Your task to perform on an android device: What's the latest news in planetary science? Image 0: 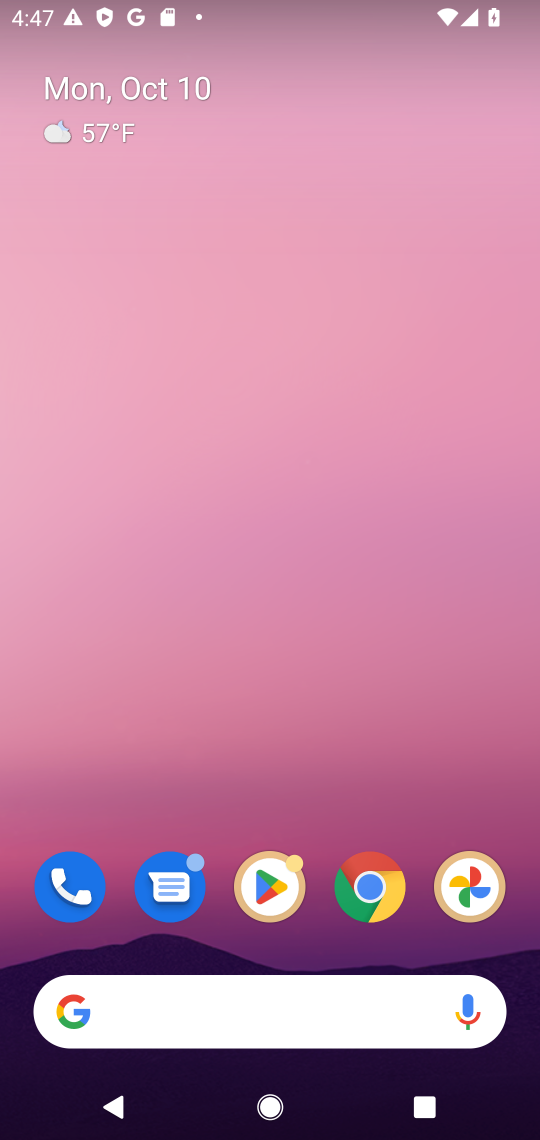
Step 0: drag from (316, 937) to (380, 23)
Your task to perform on an android device: What's the latest news in planetary science? Image 1: 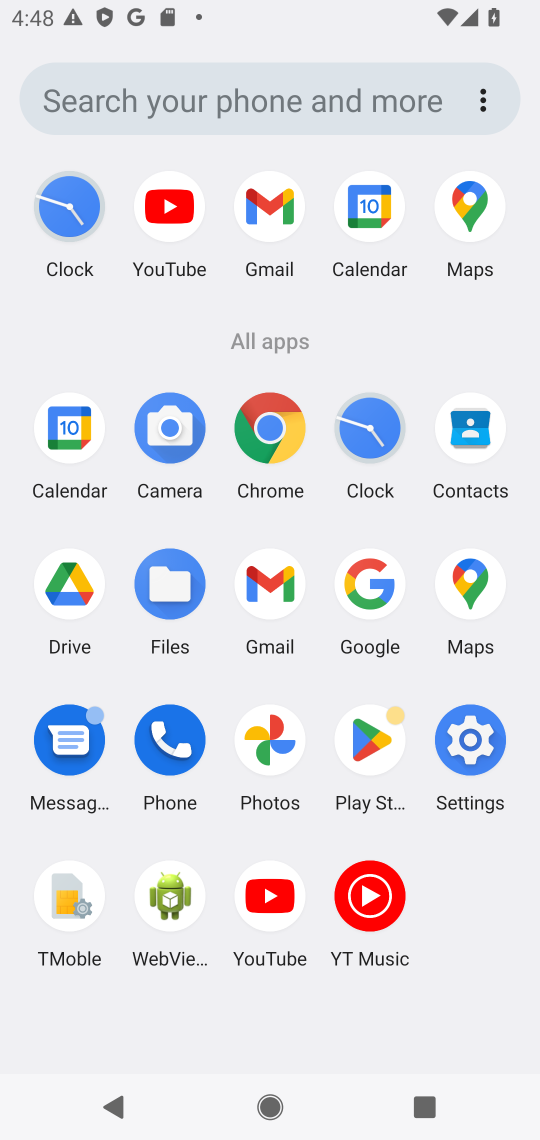
Step 1: click (272, 432)
Your task to perform on an android device: What's the latest news in planetary science? Image 2: 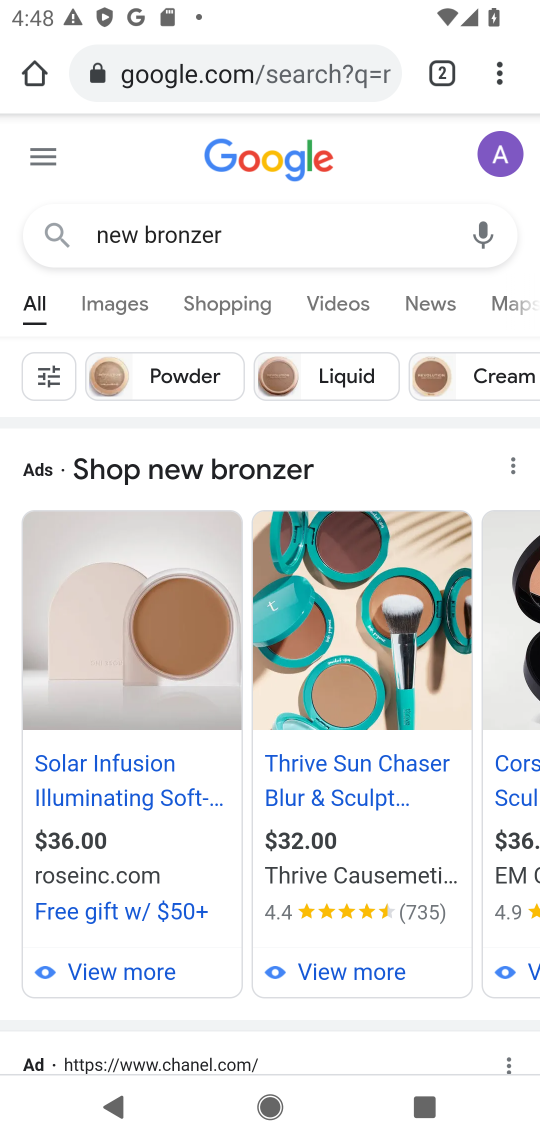
Step 2: click (159, 60)
Your task to perform on an android device: What's the latest news in planetary science? Image 3: 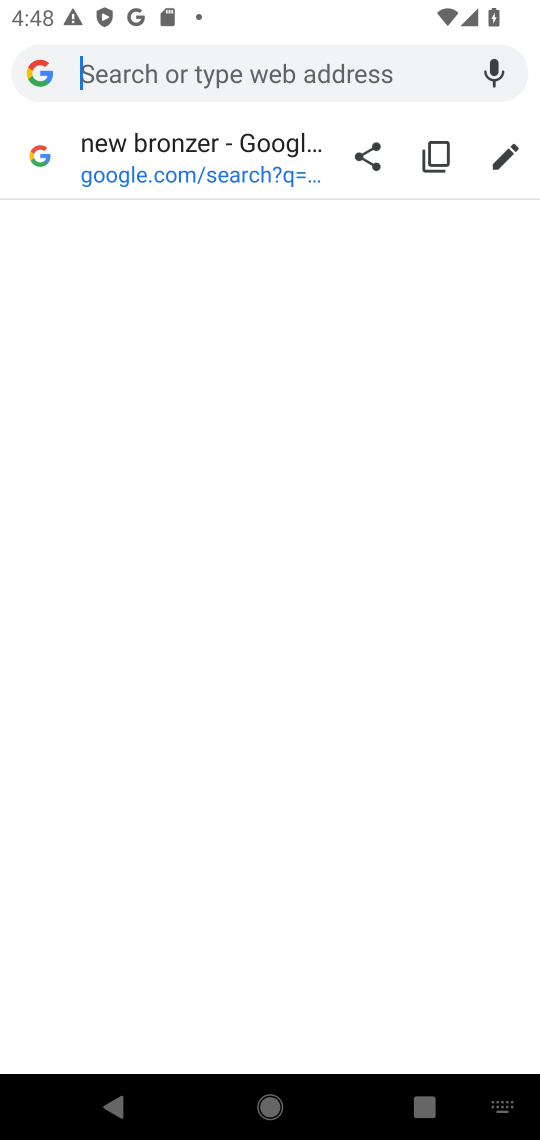
Step 3: type "What's the latest news in planetary science?"
Your task to perform on an android device: What's the latest news in planetary science? Image 4: 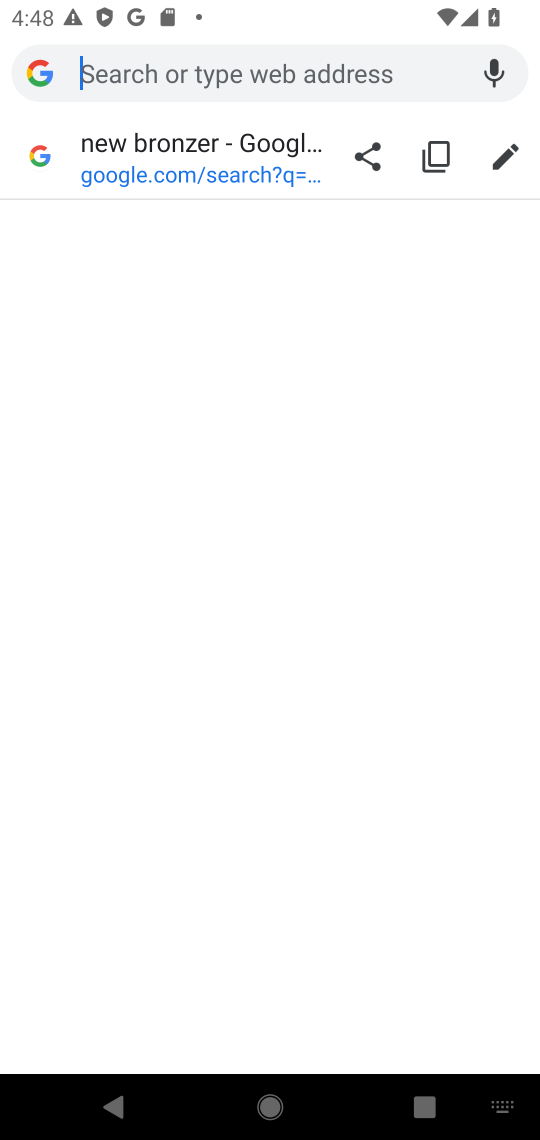
Step 4: click (366, 56)
Your task to perform on an android device: What's the latest news in planetary science? Image 5: 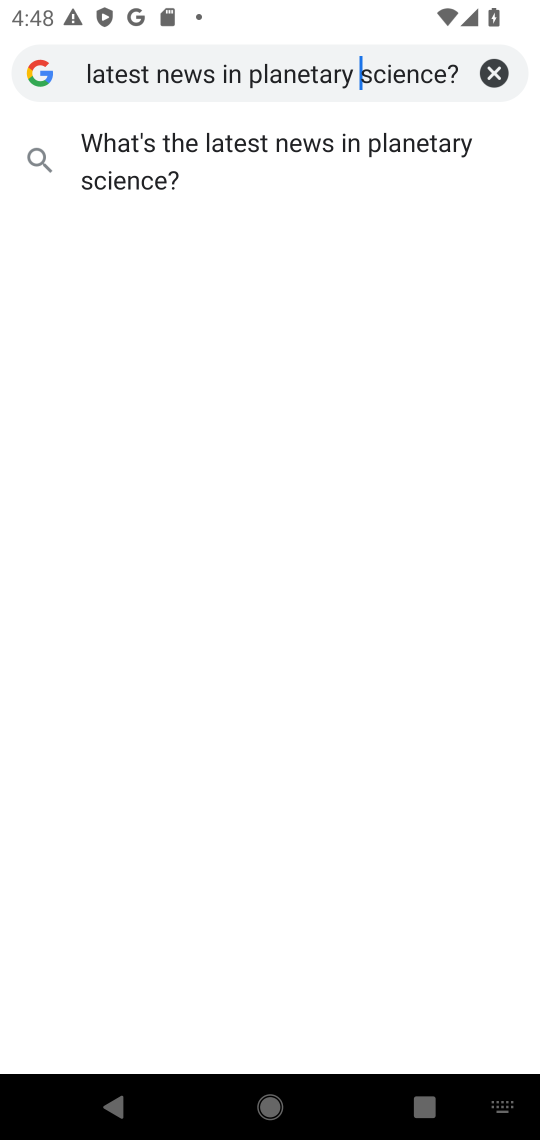
Step 5: click (140, 219)
Your task to perform on an android device: What's the latest news in planetary science? Image 6: 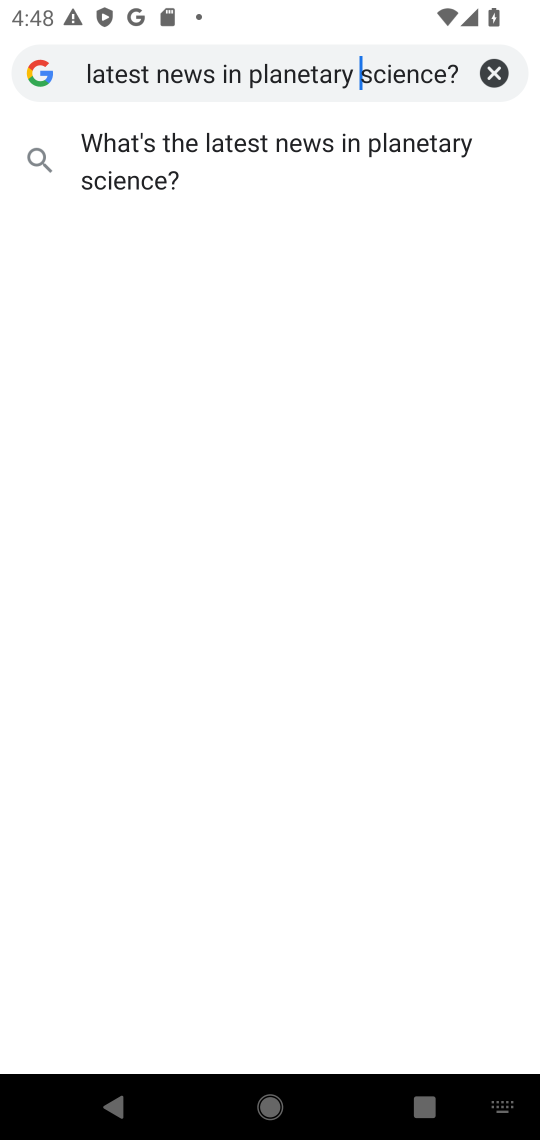
Step 6: click (168, 152)
Your task to perform on an android device: What's the latest news in planetary science? Image 7: 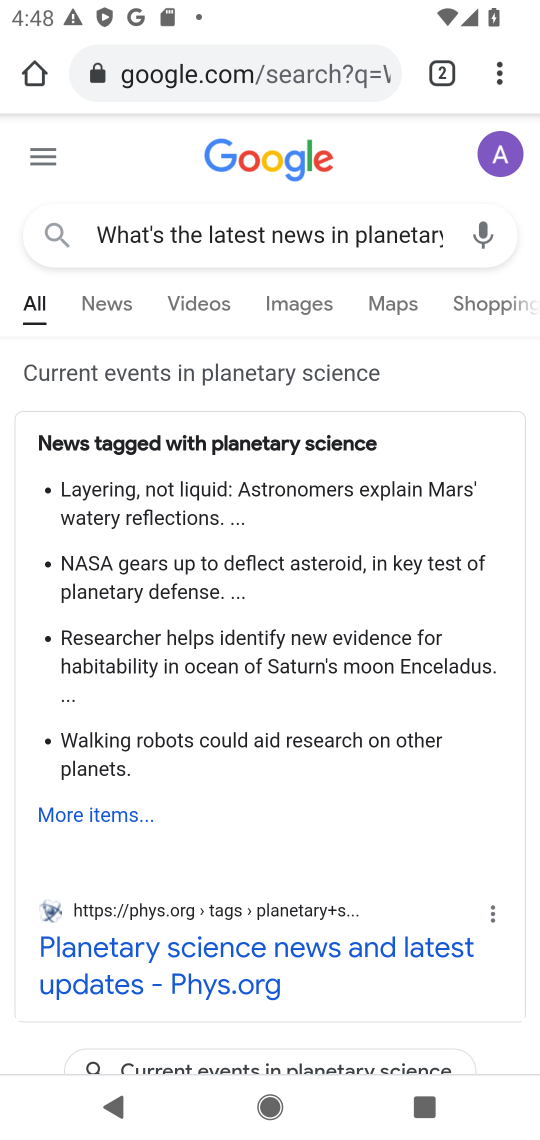
Step 7: task complete